Your task to perform on an android device: Go to Wikipedia Image 0: 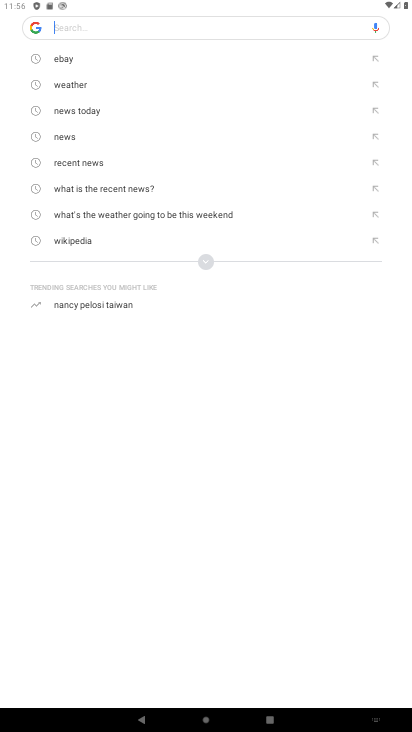
Step 0: click (106, 246)
Your task to perform on an android device: Go to Wikipedia Image 1: 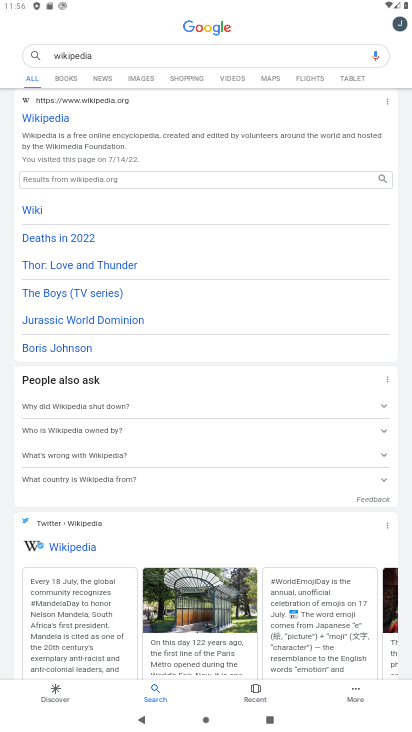
Step 1: click (51, 120)
Your task to perform on an android device: Go to Wikipedia Image 2: 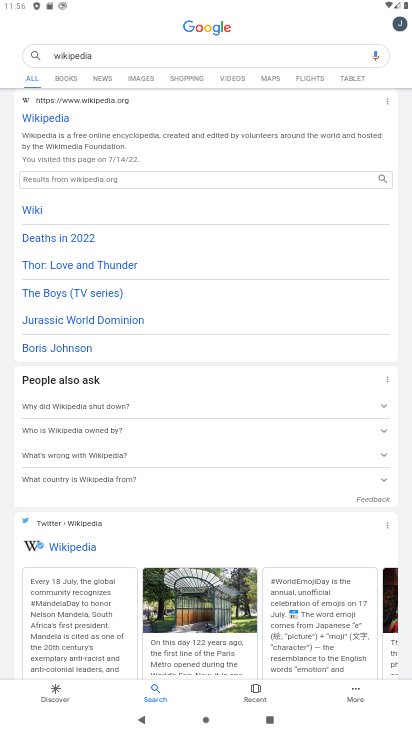
Step 2: click (68, 117)
Your task to perform on an android device: Go to Wikipedia Image 3: 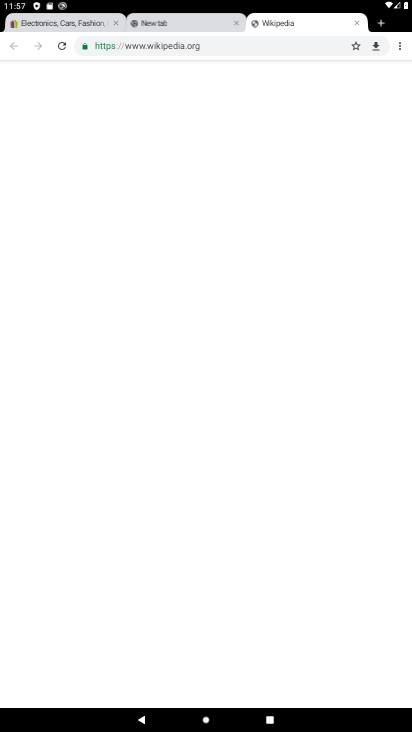
Step 3: task complete